Your task to perform on an android device: delete a single message in the gmail app Image 0: 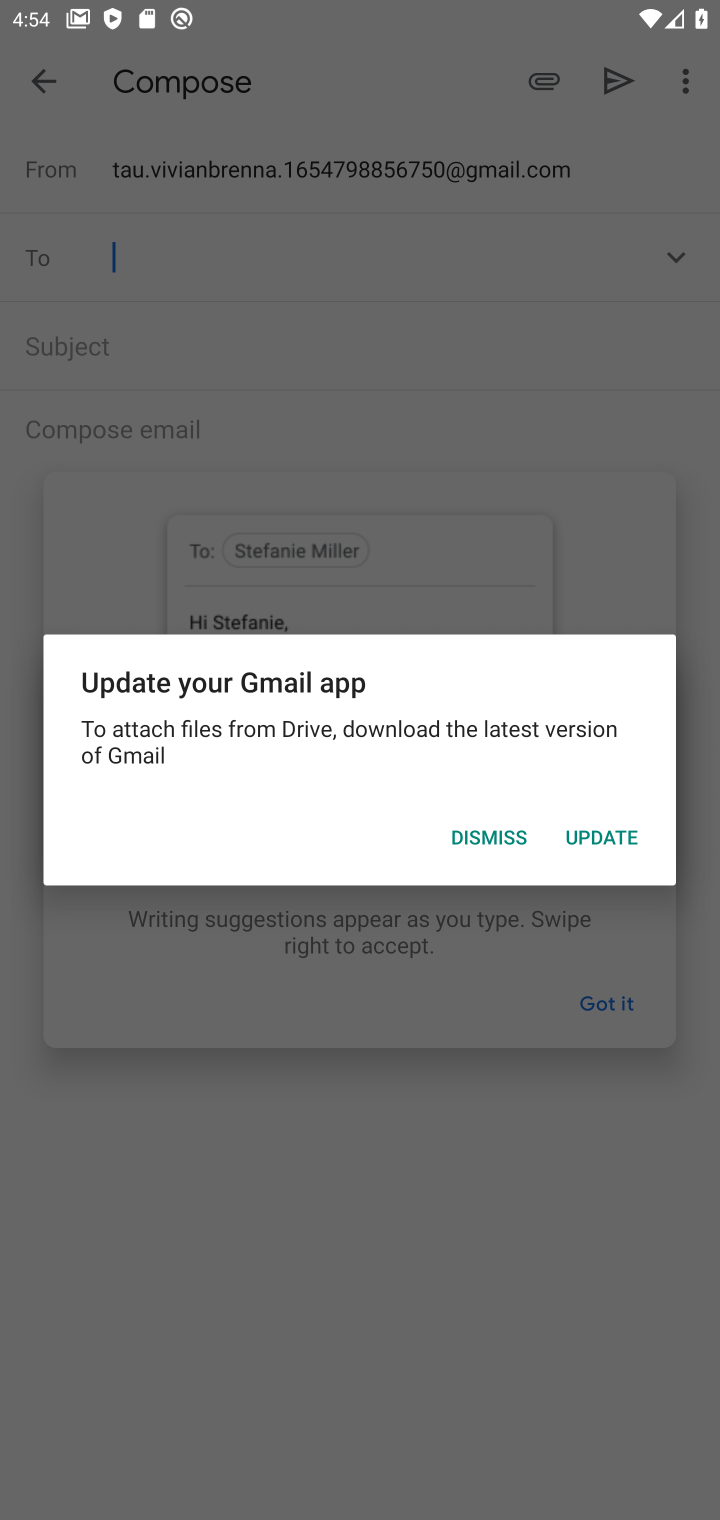
Step 0: press home button
Your task to perform on an android device: delete a single message in the gmail app Image 1: 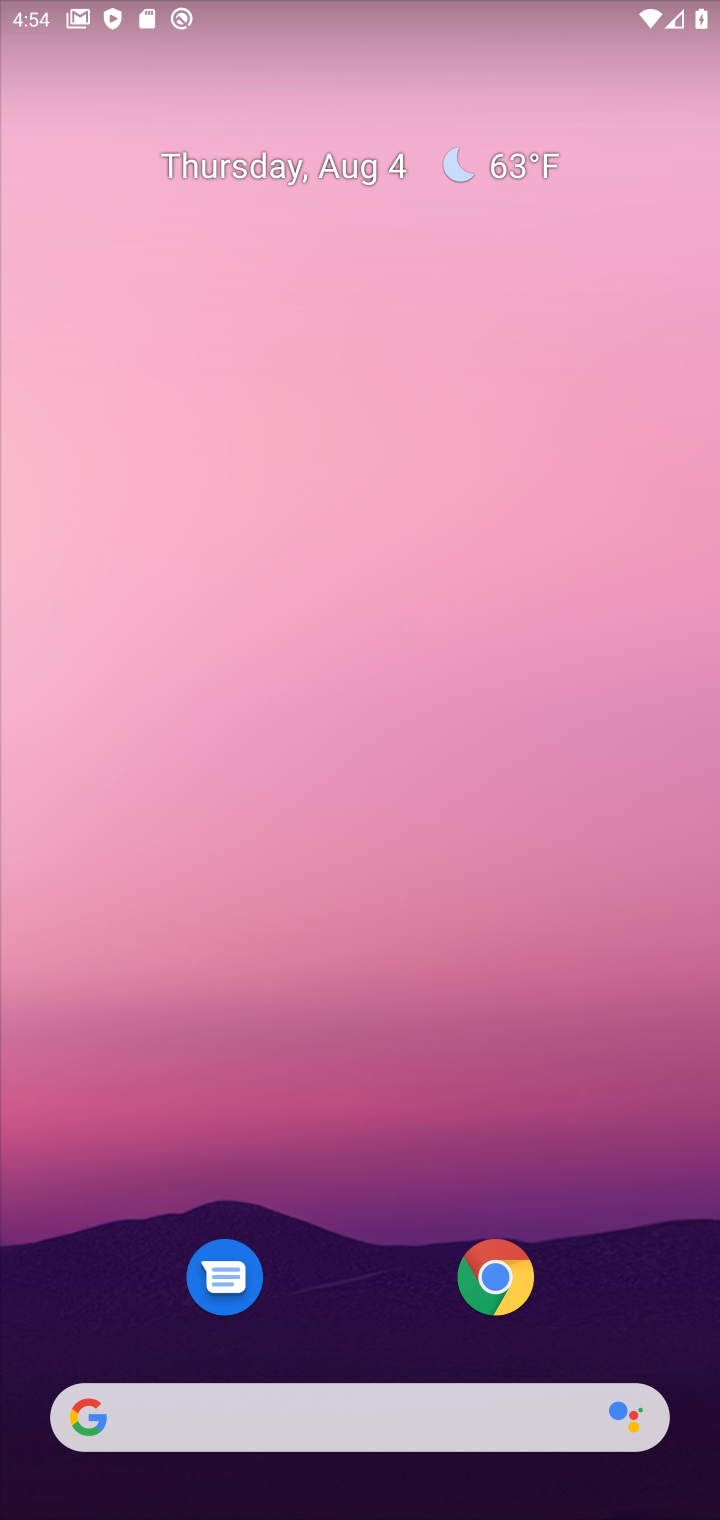
Step 1: drag from (491, 986) to (593, 56)
Your task to perform on an android device: delete a single message in the gmail app Image 2: 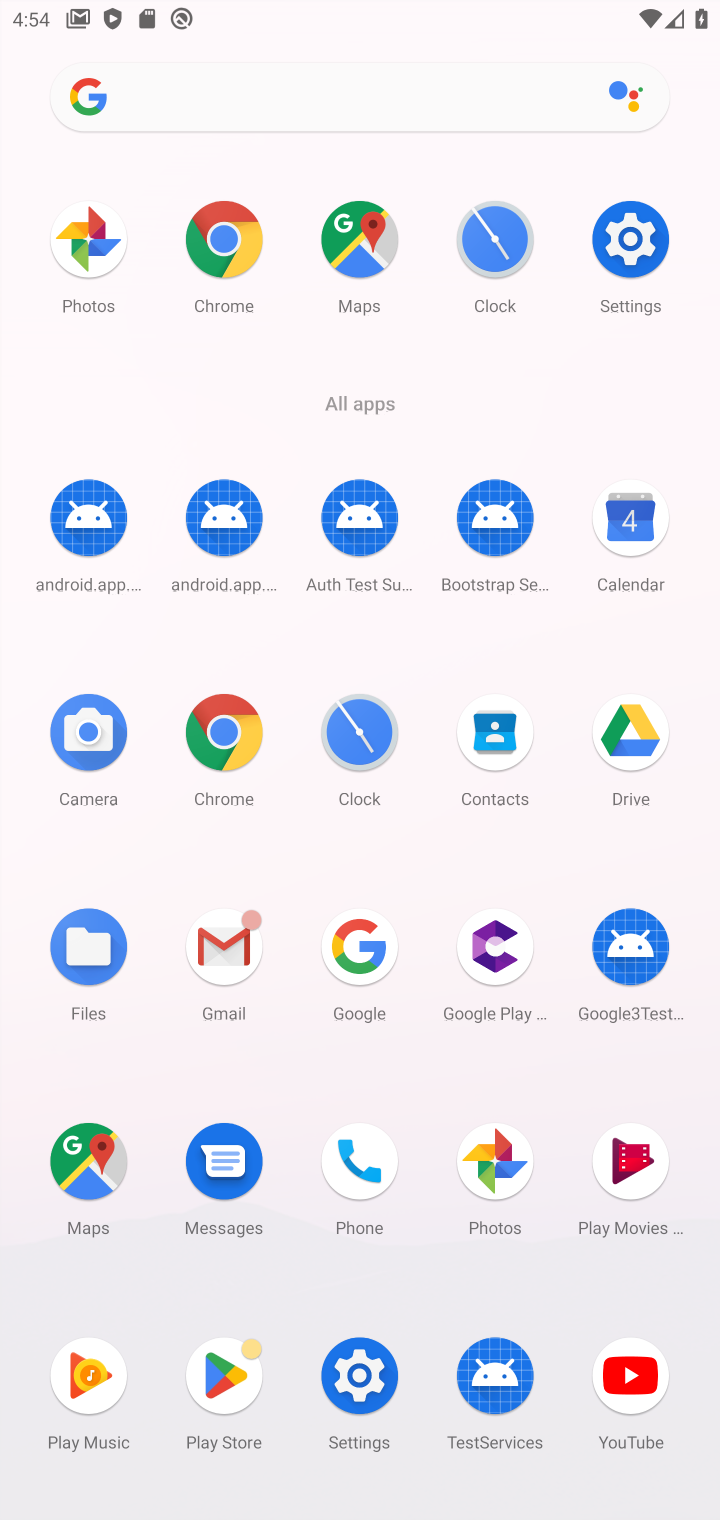
Step 2: click (209, 956)
Your task to perform on an android device: delete a single message in the gmail app Image 3: 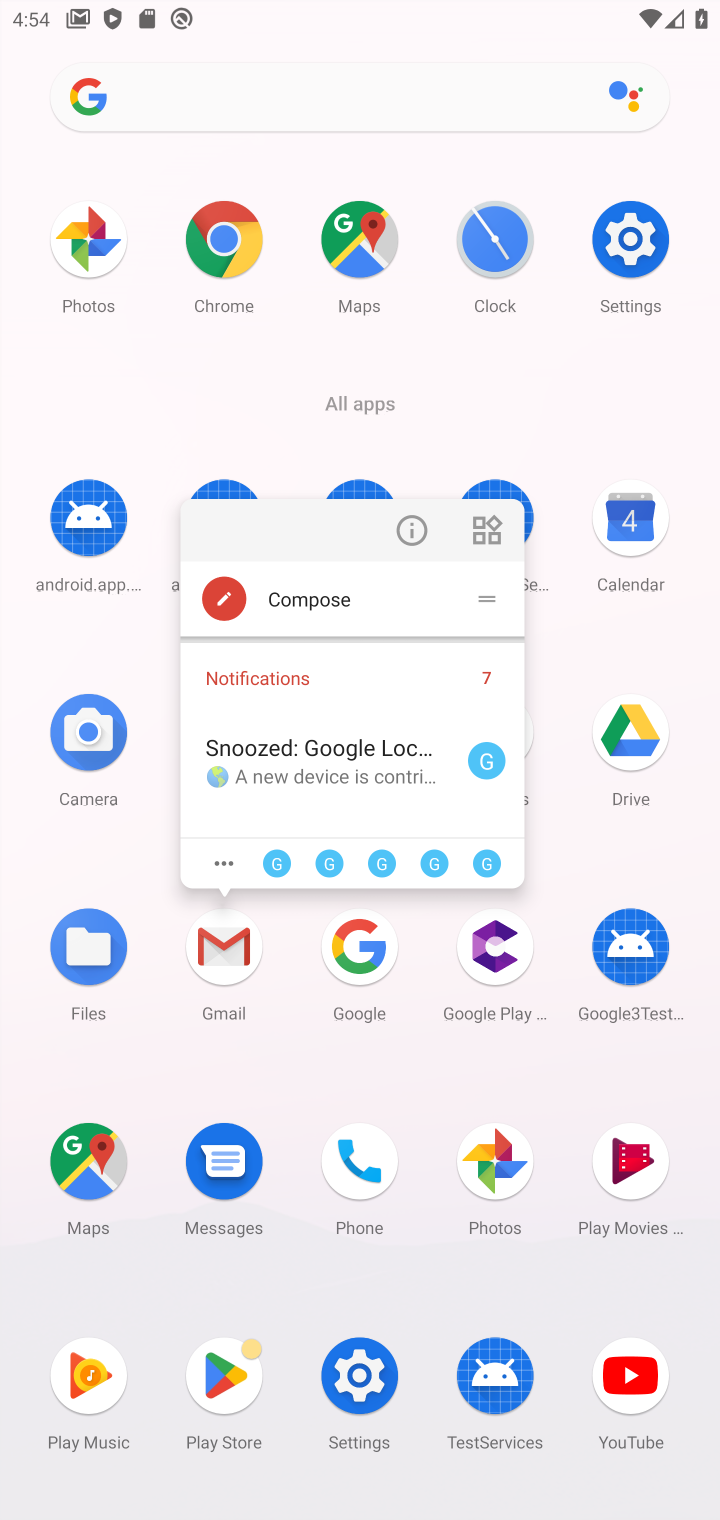
Step 3: click (209, 954)
Your task to perform on an android device: delete a single message in the gmail app Image 4: 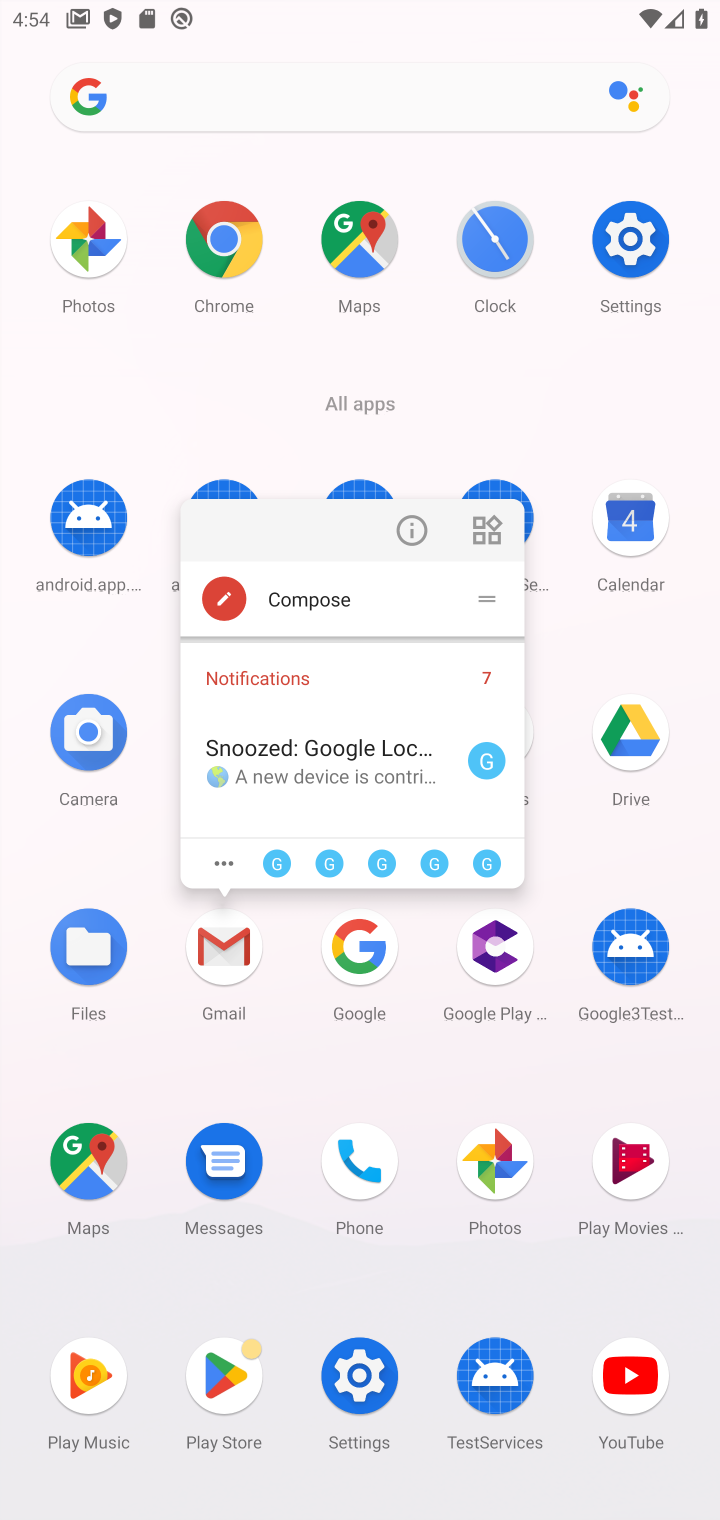
Step 4: click (209, 951)
Your task to perform on an android device: delete a single message in the gmail app Image 5: 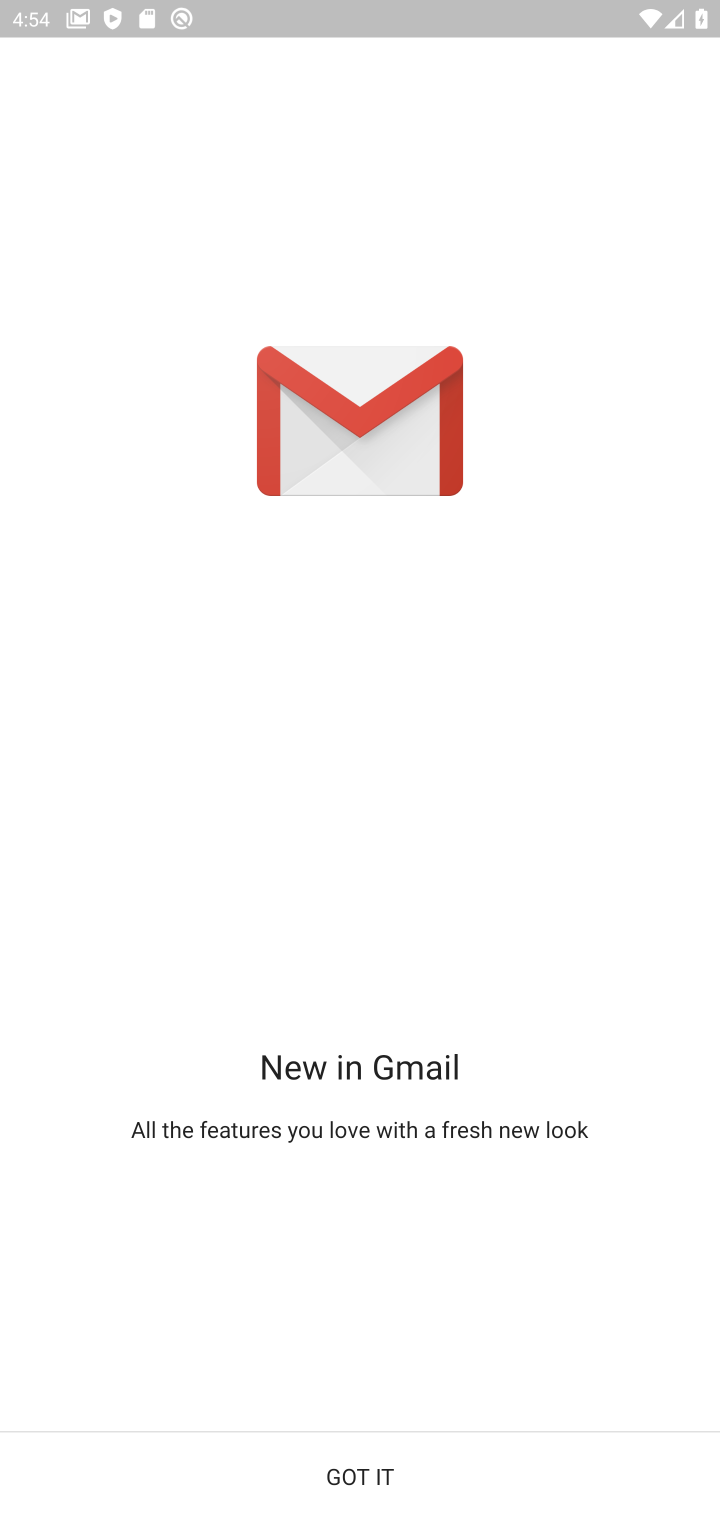
Step 5: click (273, 1453)
Your task to perform on an android device: delete a single message in the gmail app Image 6: 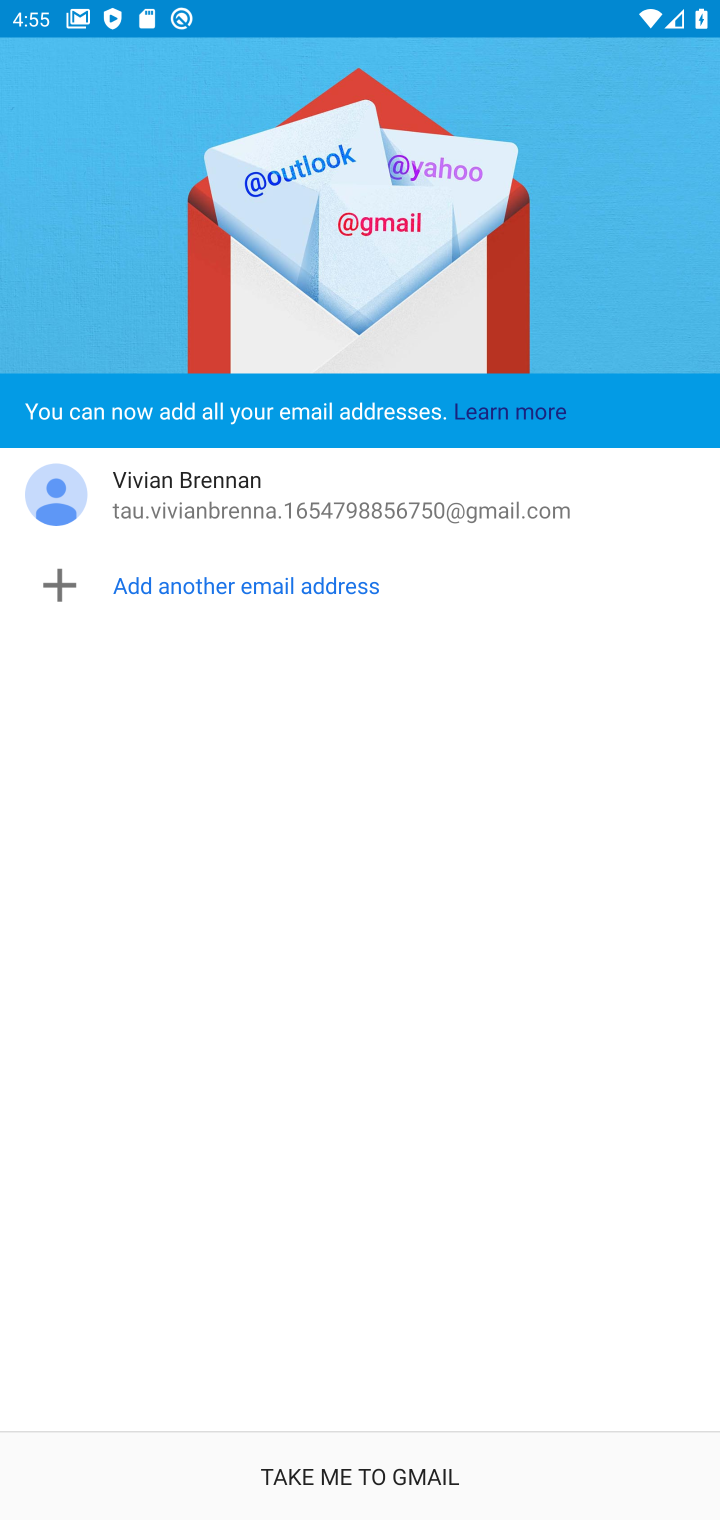
Step 6: click (278, 1456)
Your task to perform on an android device: delete a single message in the gmail app Image 7: 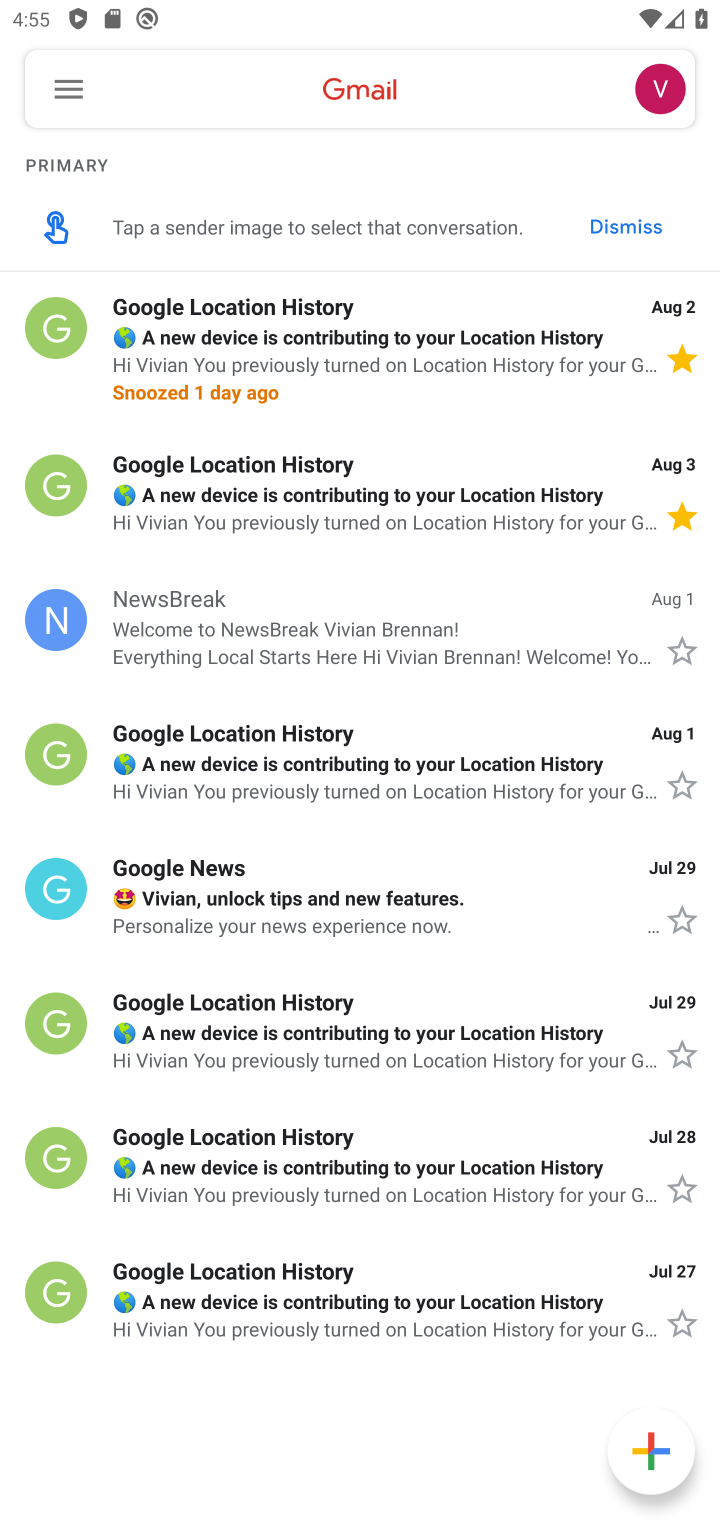
Step 7: click (495, 341)
Your task to perform on an android device: delete a single message in the gmail app Image 8: 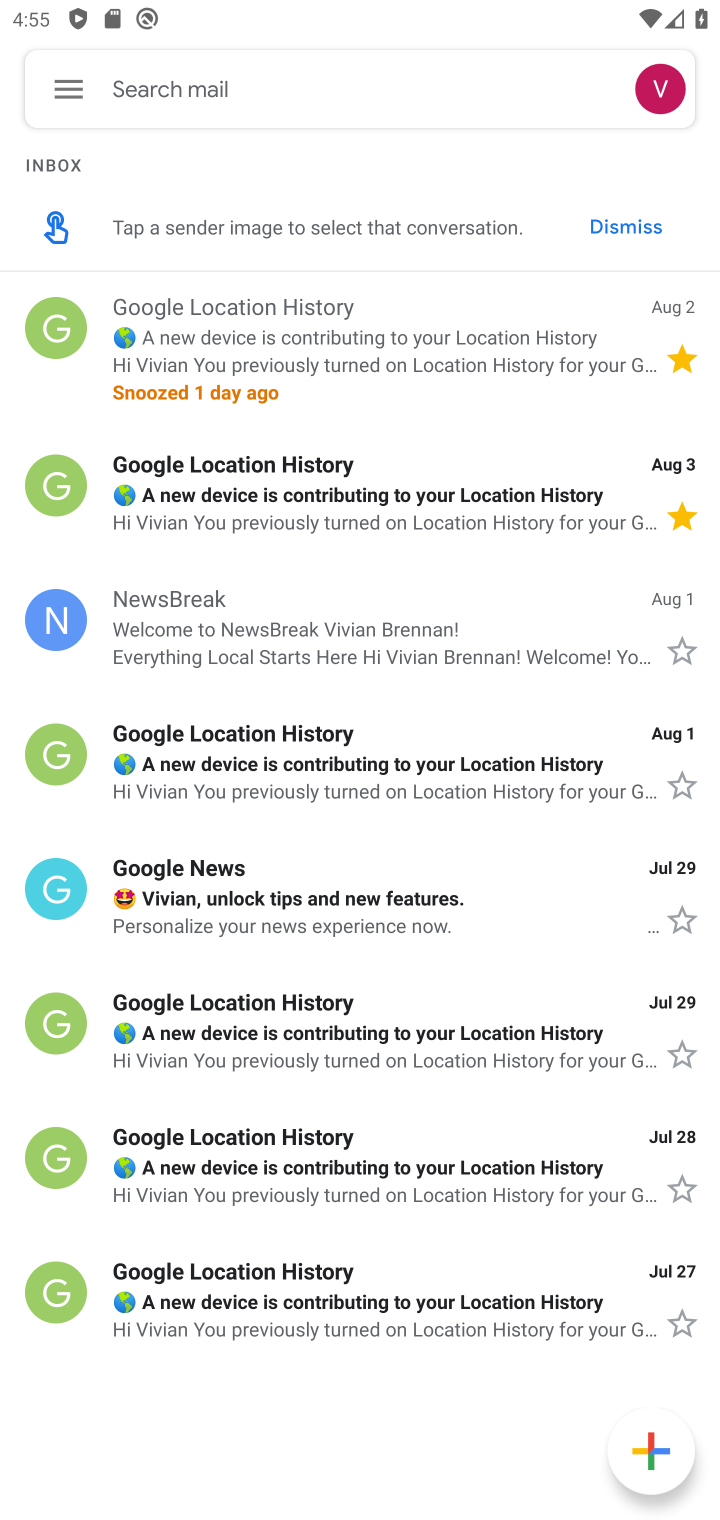
Step 8: click (444, 349)
Your task to perform on an android device: delete a single message in the gmail app Image 9: 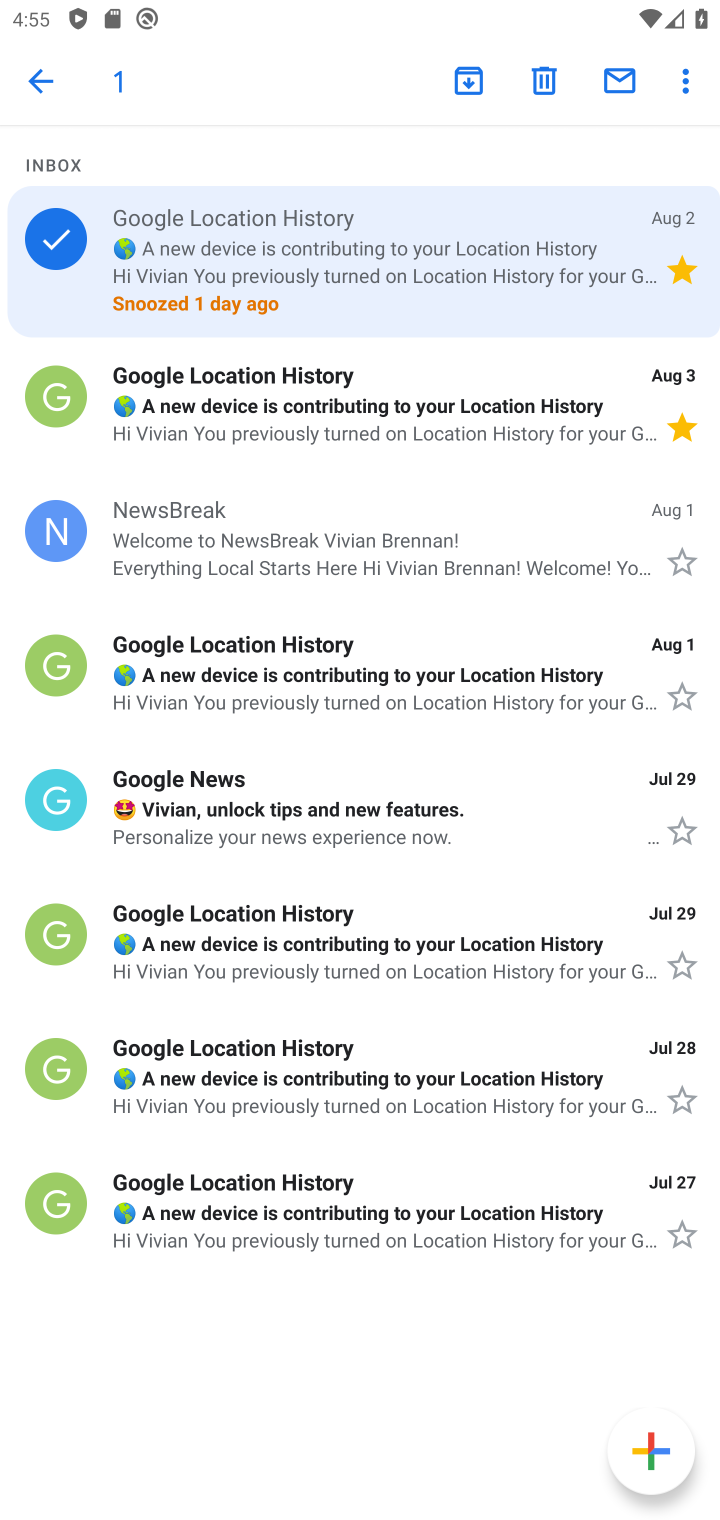
Step 9: click (546, 85)
Your task to perform on an android device: delete a single message in the gmail app Image 10: 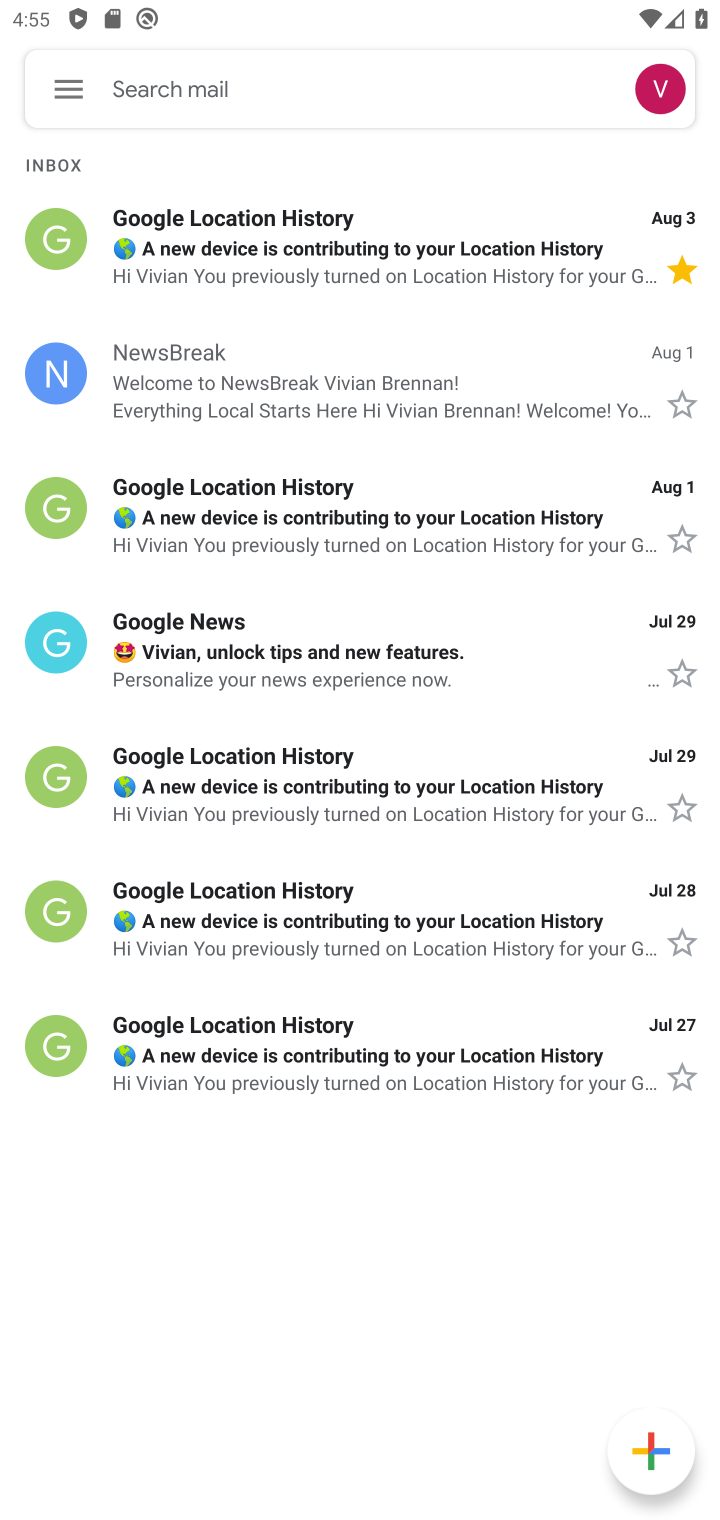
Step 10: task complete